Your task to perform on an android device: toggle translation in the chrome app Image 0: 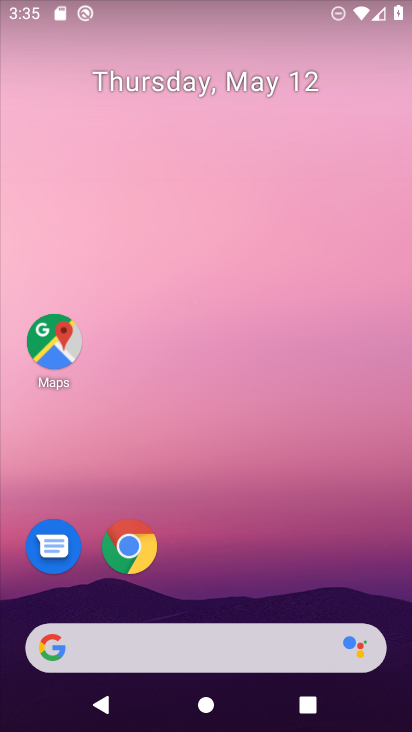
Step 0: drag from (303, 591) to (302, 317)
Your task to perform on an android device: toggle translation in the chrome app Image 1: 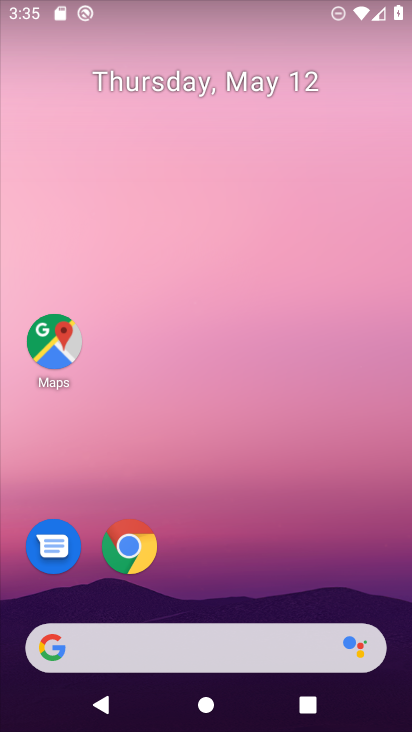
Step 1: drag from (274, 587) to (268, 254)
Your task to perform on an android device: toggle translation in the chrome app Image 2: 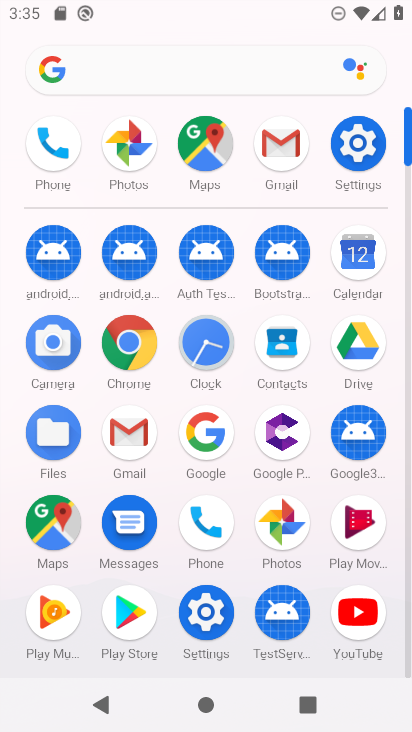
Step 2: click (121, 339)
Your task to perform on an android device: toggle translation in the chrome app Image 3: 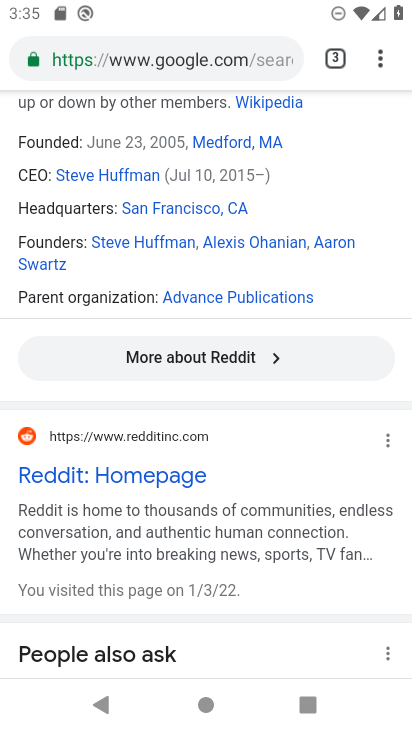
Step 3: click (365, 55)
Your task to perform on an android device: toggle translation in the chrome app Image 4: 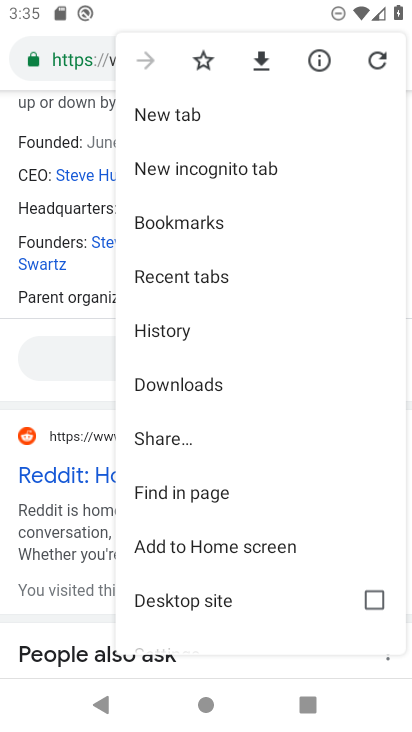
Step 4: drag from (216, 556) to (258, 275)
Your task to perform on an android device: toggle translation in the chrome app Image 5: 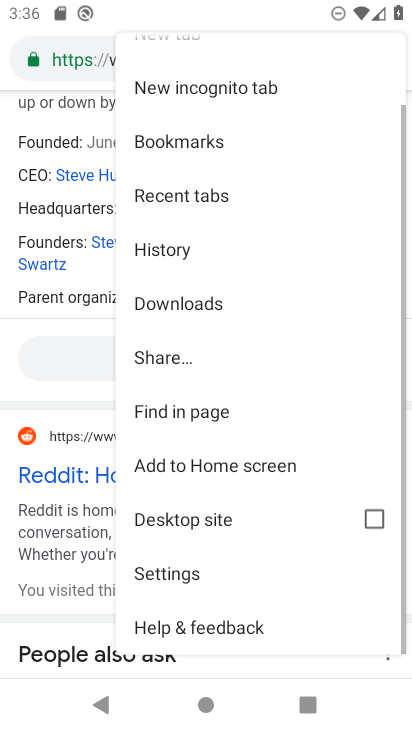
Step 5: click (205, 584)
Your task to perform on an android device: toggle translation in the chrome app Image 6: 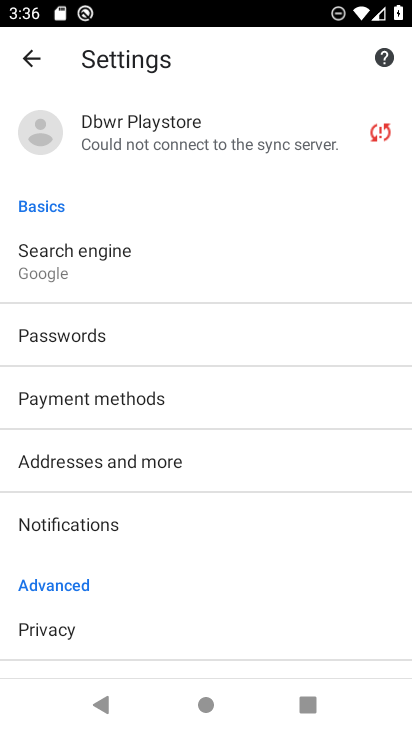
Step 6: drag from (154, 589) to (216, 301)
Your task to perform on an android device: toggle translation in the chrome app Image 7: 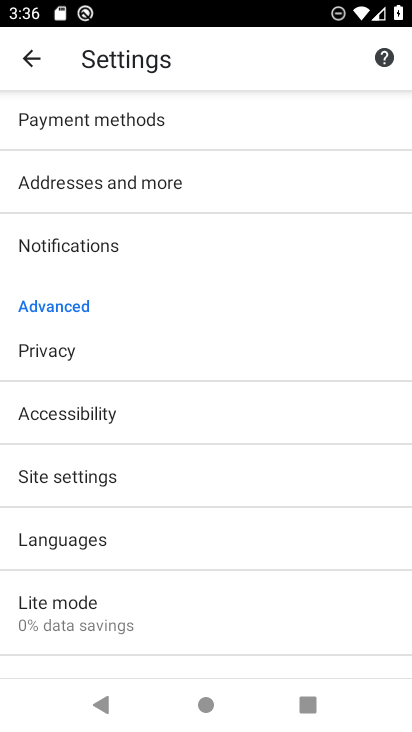
Step 7: click (100, 542)
Your task to perform on an android device: toggle translation in the chrome app Image 8: 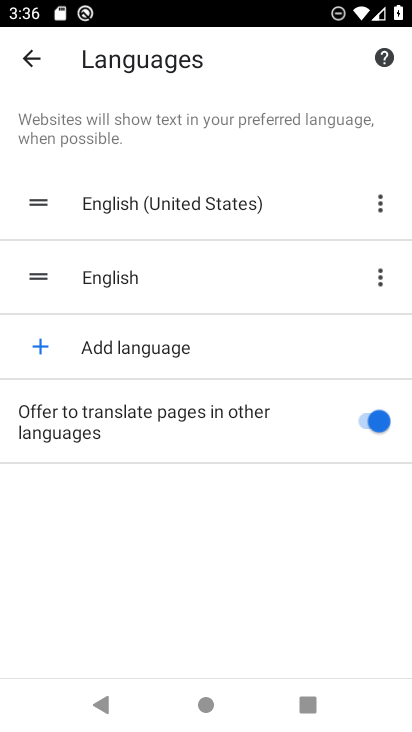
Step 8: click (359, 419)
Your task to perform on an android device: toggle translation in the chrome app Image 9: 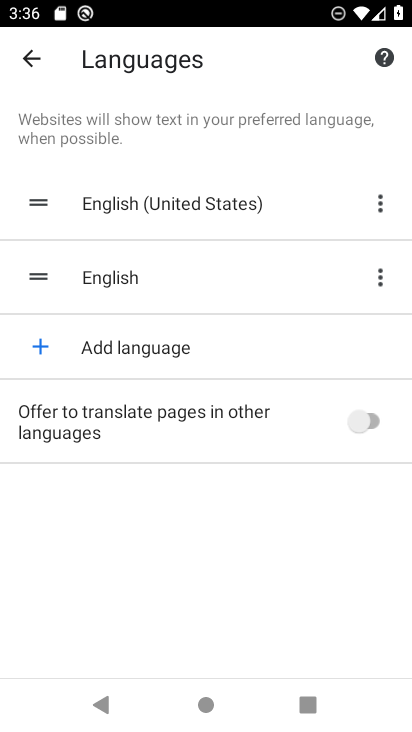
Step 9: task complete